Your task to perform on an android device: change notification settings in the gmail app Image 0: 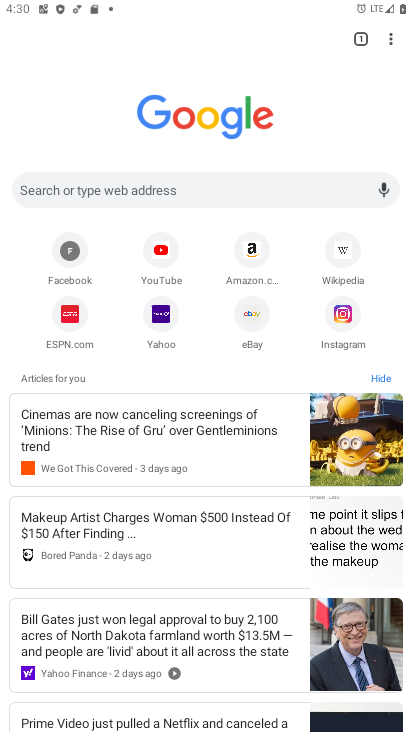
Step 0: press home button
Your task to perform on an android device: change notification settings in the gmail app Image 1: 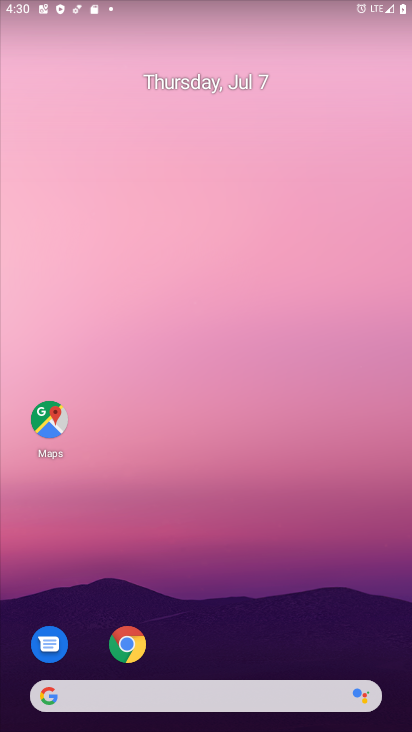
Step 1: drag from (253, 631) to (200, 110)
Your task to perform on an android device: change notification settings in the gmail app Image 2: 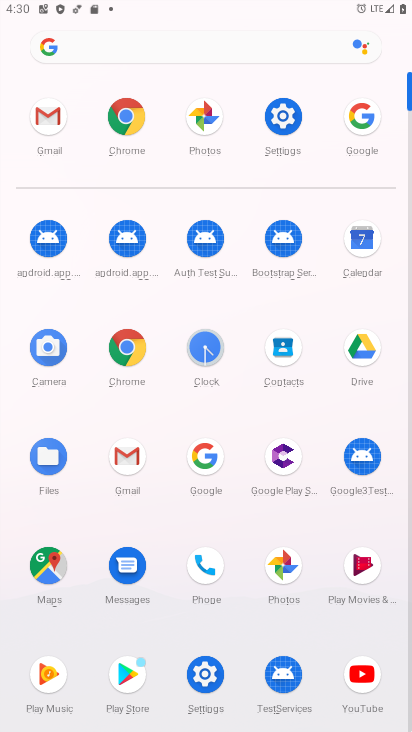
Step 2: click (48, 113)
Your task to perform on an android device: change notification settings in the gmail app Image 3: 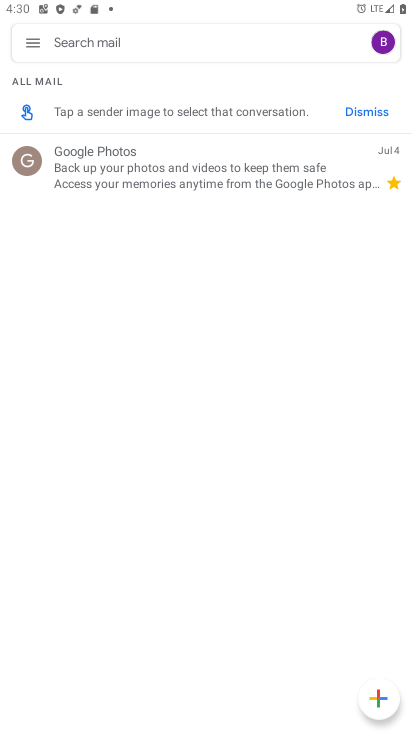
Step 3: click (33, 39)
Your task to perform on an android device: change notification settings in the gmail app Image 4: 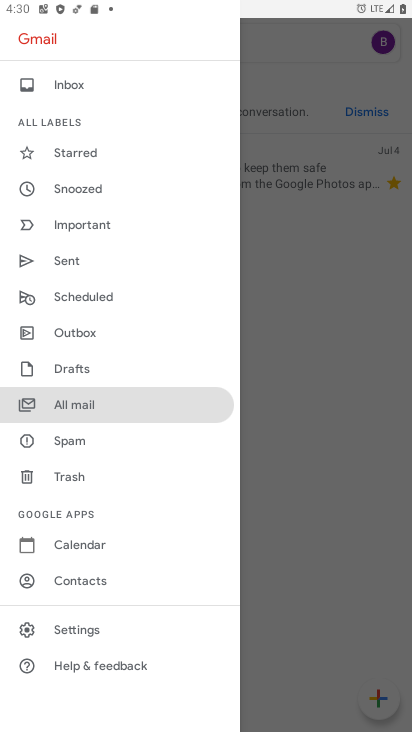
Step 4: click (85, 629)
Your task to perform on an android device: change notification settings in the gmail app Image 5: 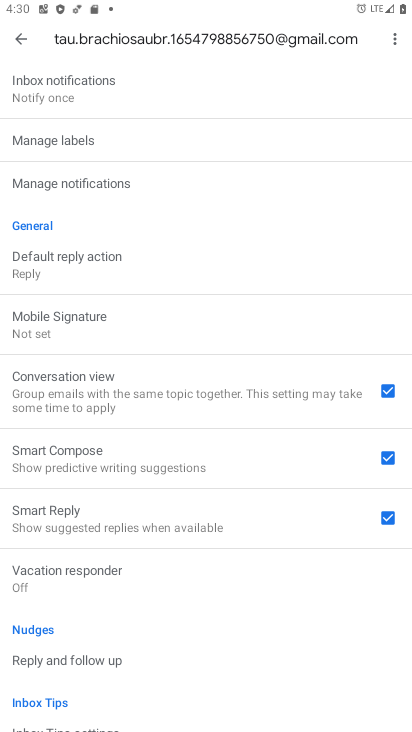
Step 5: click (102, 186)
Your task to perform on an android device: change notification settings in the gmail app Image 6: 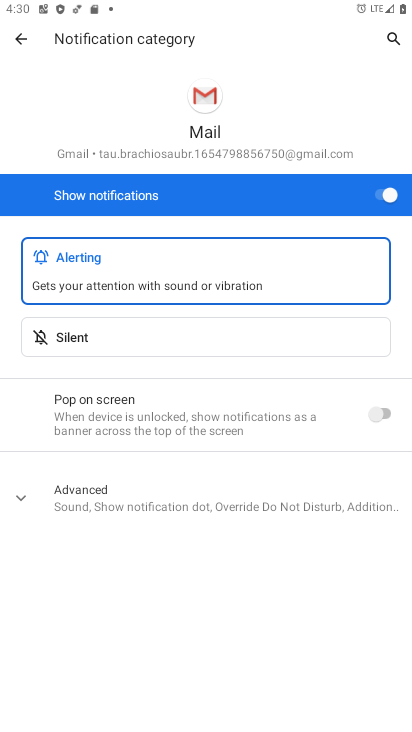
Step 6: click (386, 194)
Your task to perform on an android device: change notification settings in the gmail app Image 7: 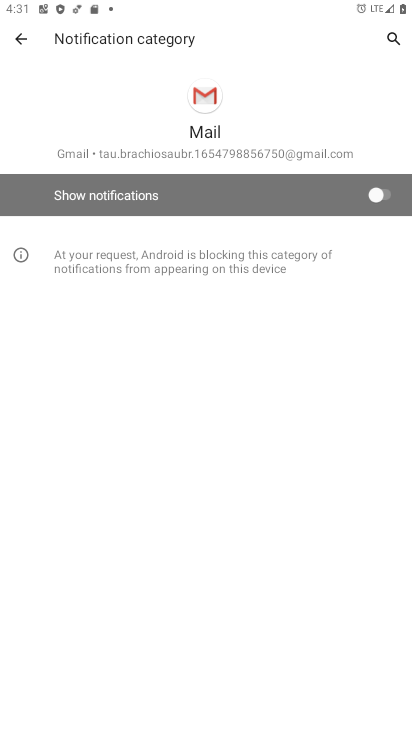
Step 7: task complete